Your task to perform on an android device: change notification settings in the gmail app Image 0: 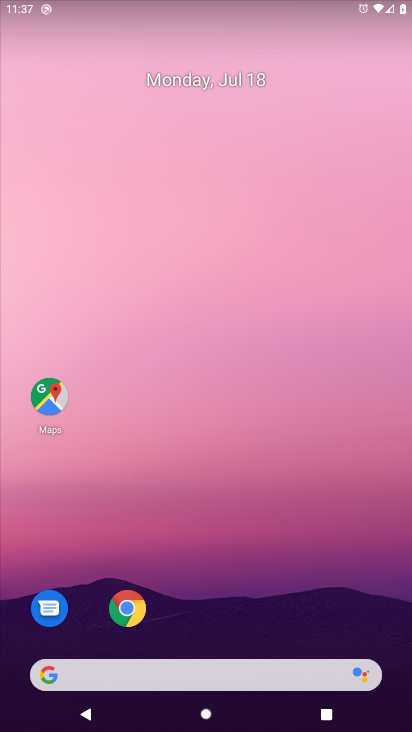
Step 0: drag from (87, 603) to (177, 197)
Your task to perform on an android device: change notification settings in the gmail app Image 1: 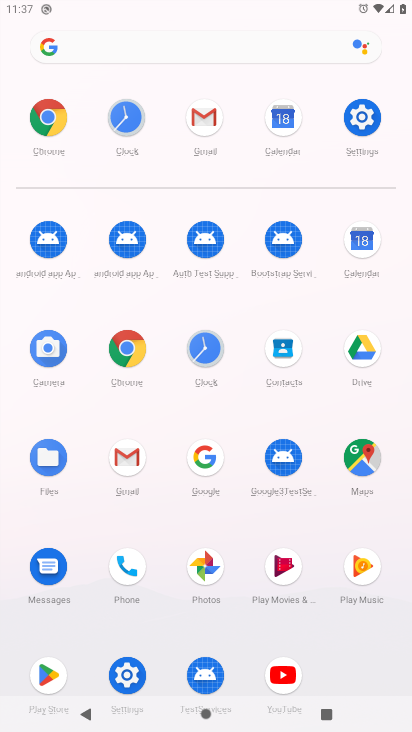
Step 1: click (132, 455)
Your task to perform on an android device: change notification settings in the gmail app Image 2: 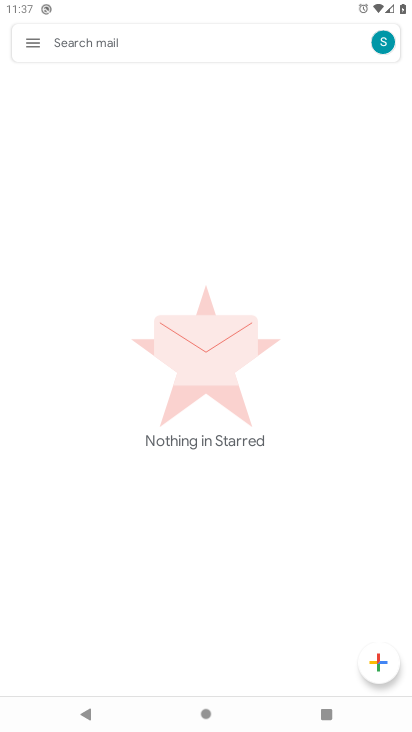
Step 2: click (37, 42)
Your task to perform on an android device: change notification settings in the gmail app Image 3: 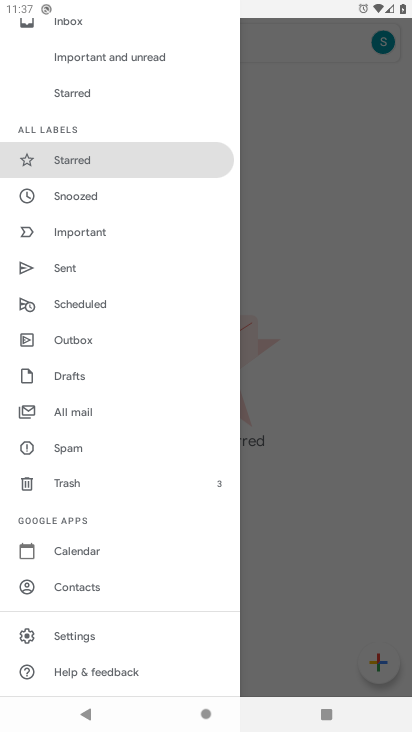
Step 3: click (75, 642)
Your task to perform on an android device: change notification settings in the gmail app Image 4: 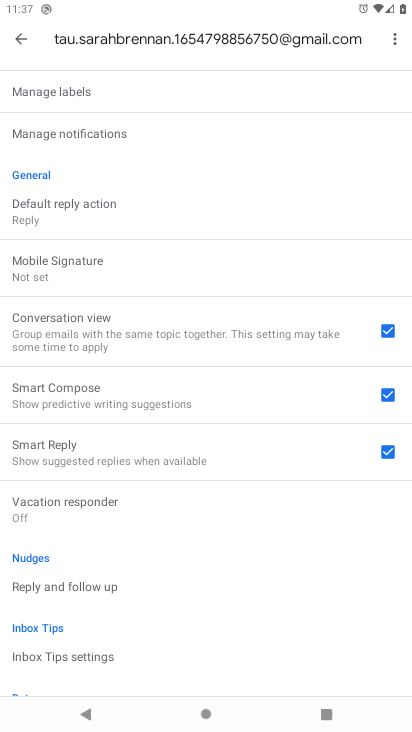
Step 4: click (73, 124)
Your task to perform on an android device: change notification settings in the gmail app Image 5: 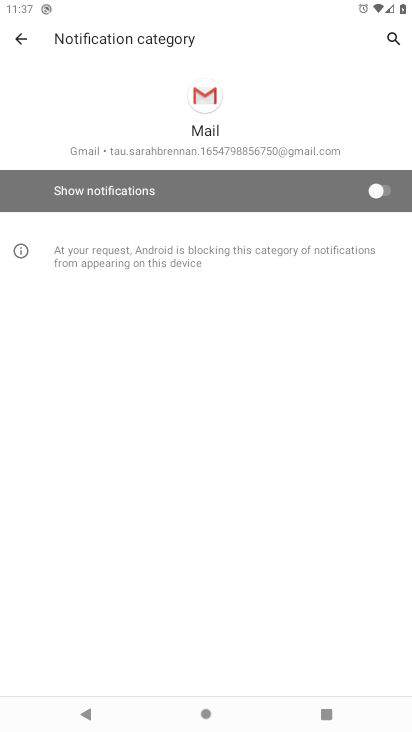
Step 5: click (384, 199)
Your task to perform on an android device: change notification settings in the gmail app Image 6: 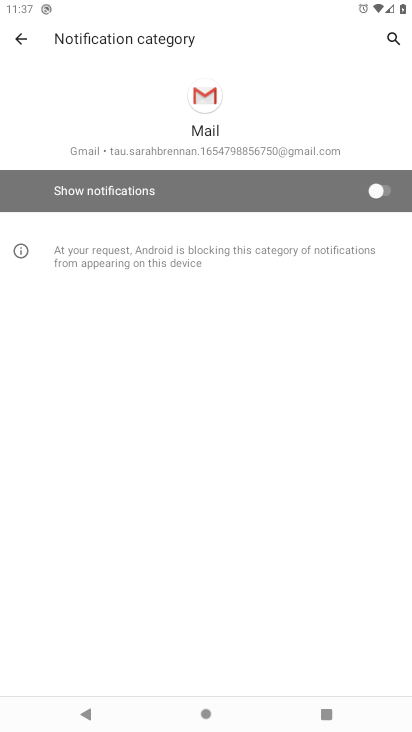
Step 6: click (380, 195)
Your task to perform on an android device: change notification settings in the gmail app Image 7: 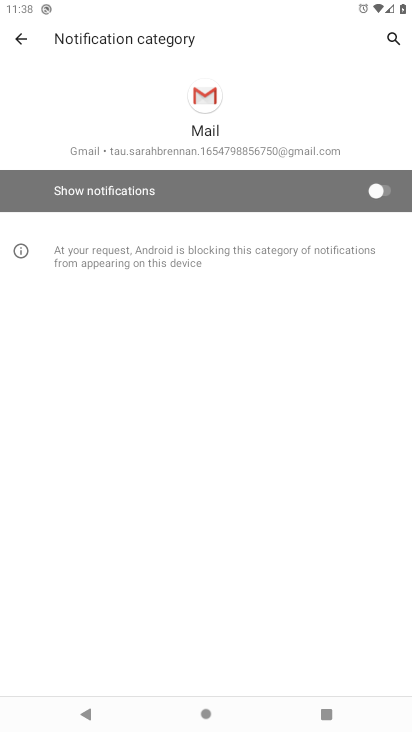
Step 7: click (370, 180)
Your task to perform on an android device: change notification settings in the gmail app Image 8: 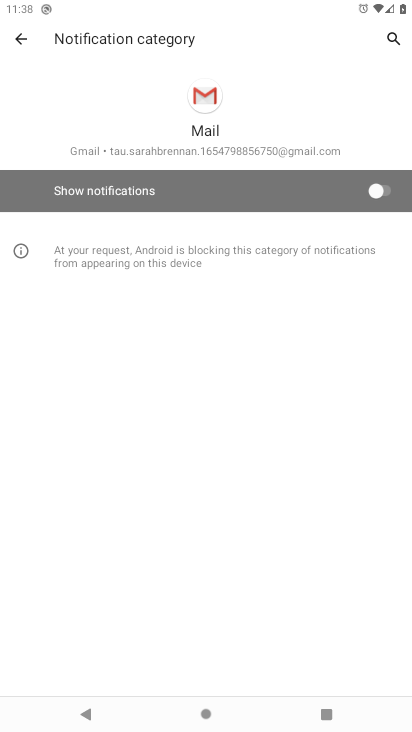
Step 8: click (377, 186)
Your task to perform on an android device: change notification settings in the gmail app Image 9: 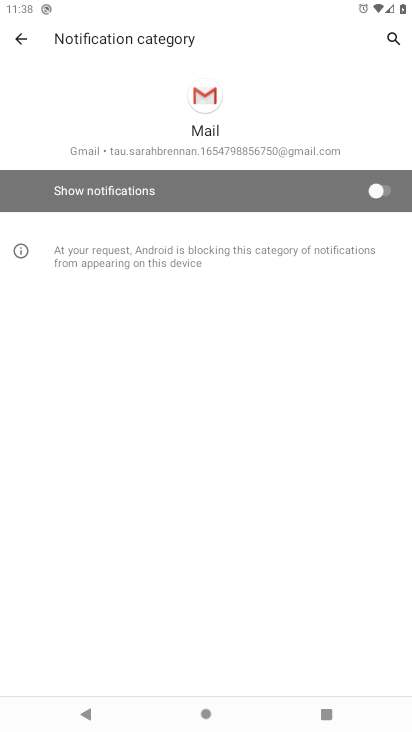
Step 9: click (369, 187)
Your task to perform on an android device: change notification settings in the gmail app Image 10: 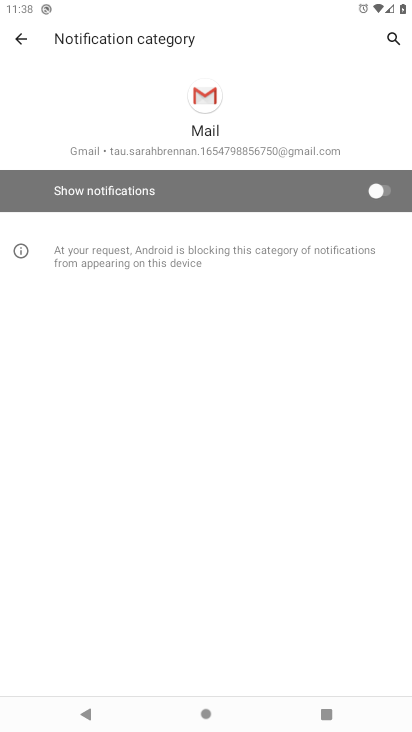
Step 10: click (374, 197)
Your task to perform on an android device: change notification settings in the gmail app Image 11: 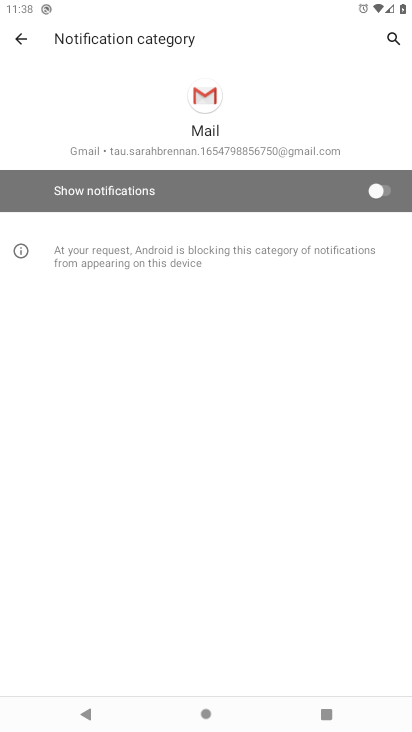
Step 11: task complete